Your task to perform on an android device: Go to privacy settings Image 0: 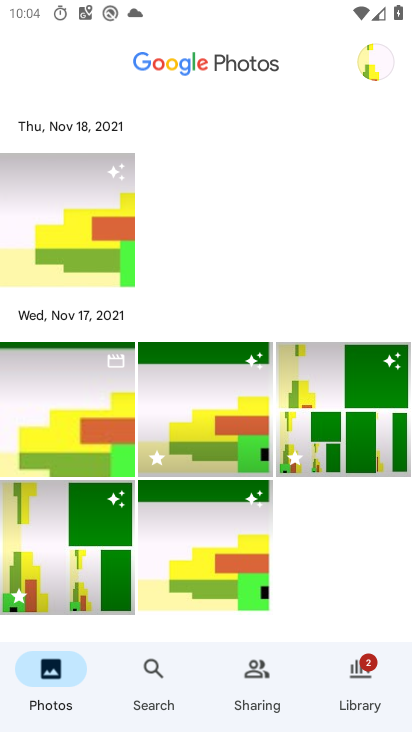
Step 0: press back button
Your task to perform on an android device: Go to privacy settings Image 1: 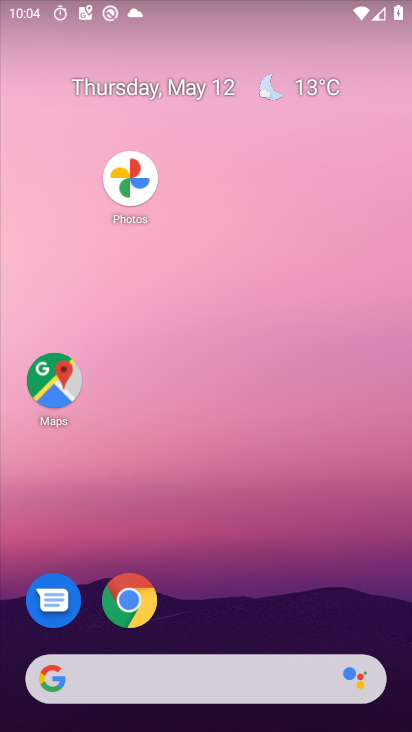
Step 1: drag from (294, 627) to (174, 72)
Your task to perform on an android device: Go to privacy settings Image 2: 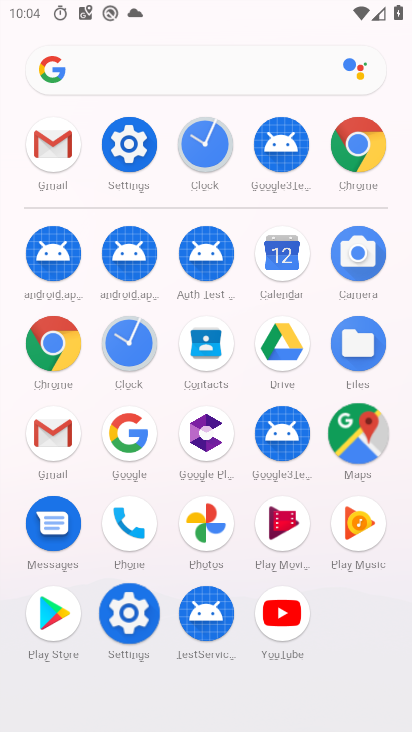
Step 2: click (128, 147)
Your task to perform on an android device: Go to privacy settings Image 3: 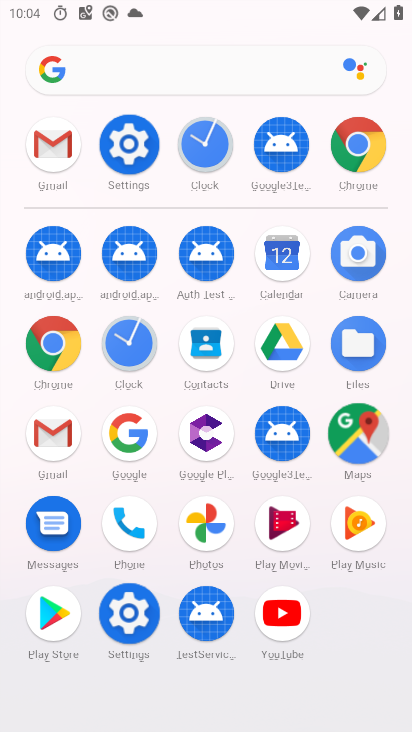
Step 3: click (128, 147)
Your task to perform on an android device: Go to privacy settings Image 4: 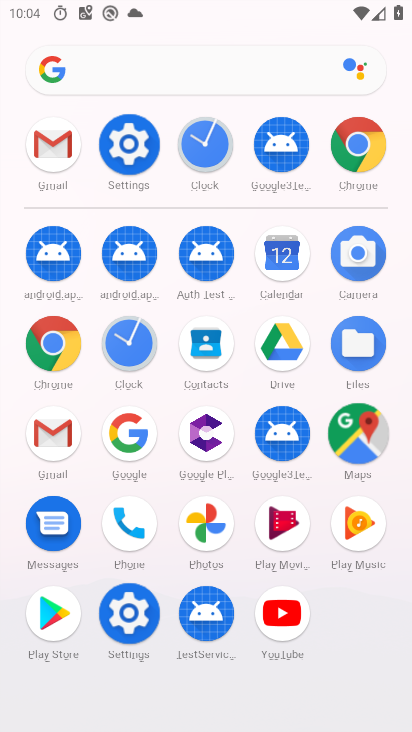
Step 4: click (131, 147)
Your task to perform on an android device: Go to privacy settings Image 5: 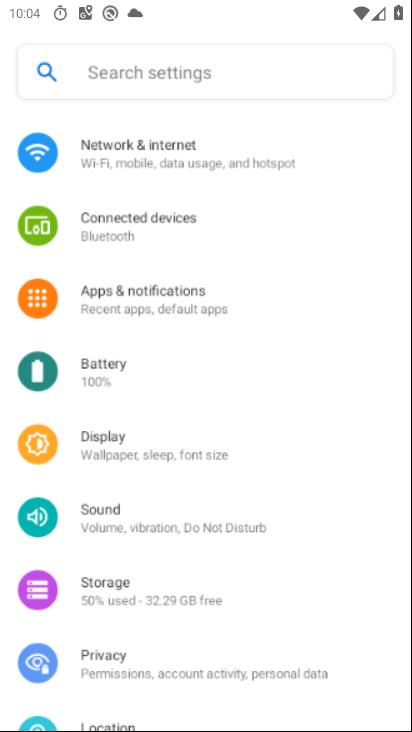
Step 5: click (131, 148)
Your task to perform on an android device: Go to privacy settings Image 6: 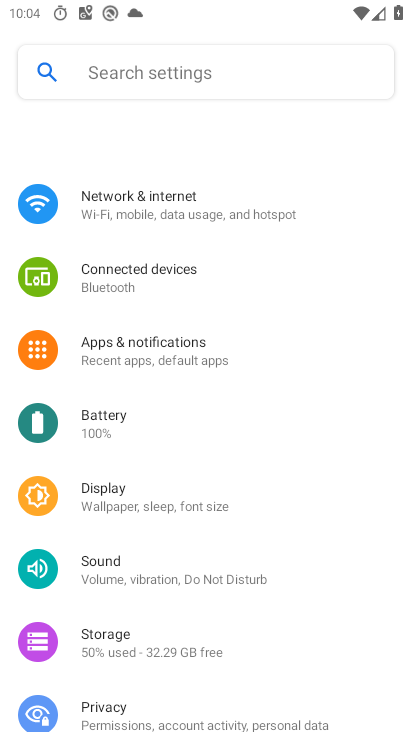
Step 6: click (132, 151)
Your task to perform on an android device: Go to privacy settings Image 7: 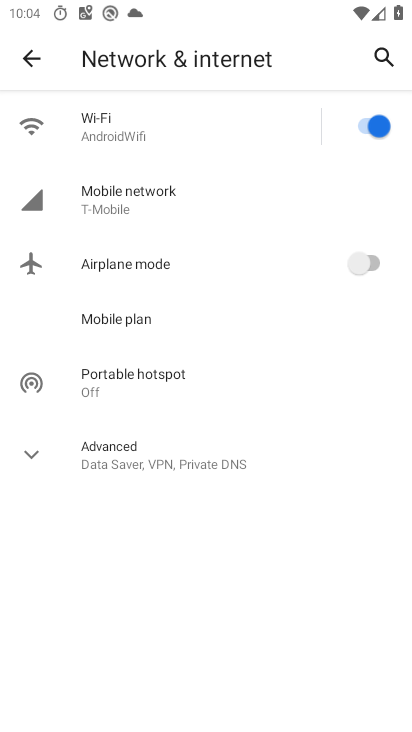
Step 7: click (30, 53)
Your task to perform on an android device: Go to privacy settings Image 8: 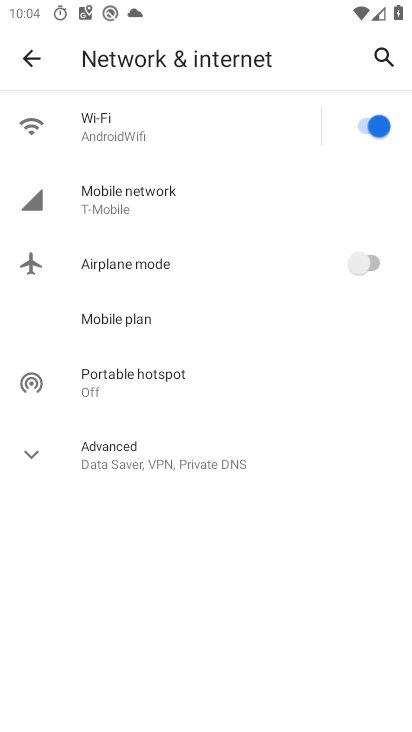
Step 8: click (32, 53)
Your task to perform on an android device: Go to privacy settings Image 9: 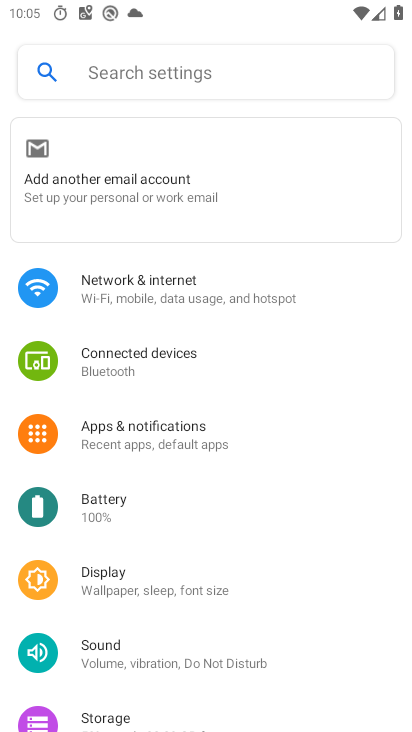
Step 9: drag from (156, 562) to (62, 196)
Your task to perform on an android device: Go to privacy settings Image 10: 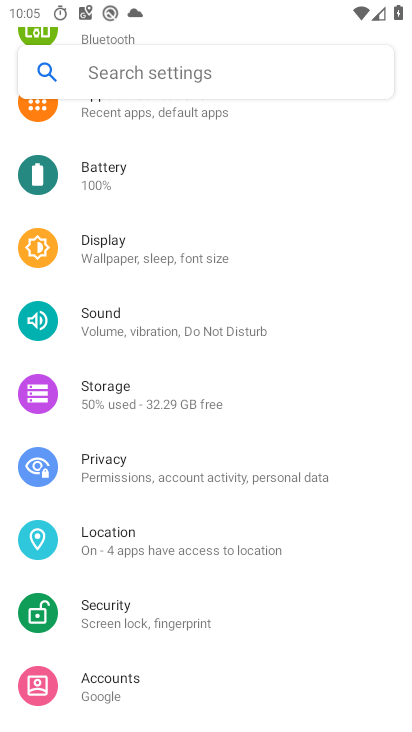
Step 10: drag from (152, 401) to (174, 214)
Your task to perform on an android device: Go to privacy settings Image 11: 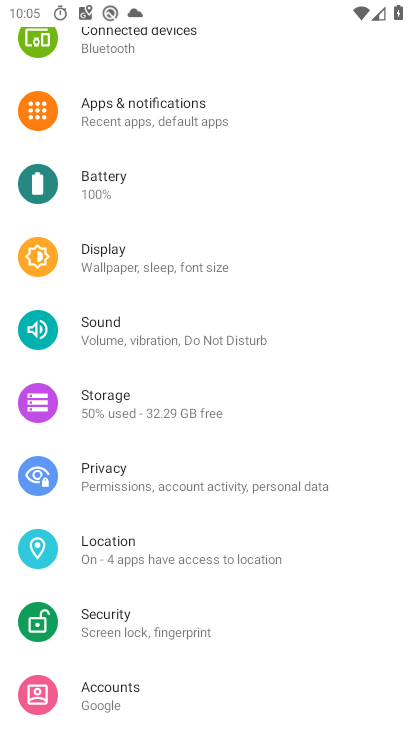
Step 11: click (54, 136)
Your task to perform on an android device: Go to privacy settings Image 12: 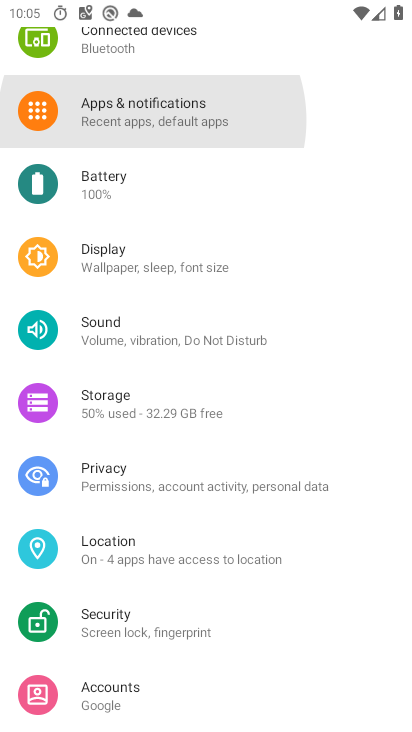
Step 12: drag from (115, 382) to (167, 130)
Your task to perform on an android device: Go to privacy settings Image 13: 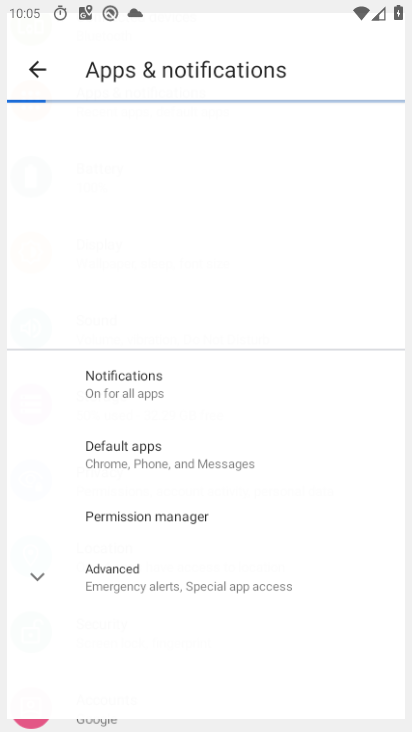
Step 13: click (103, 474)
Your task to perform on an android device: Go to privacy settings Image 14: 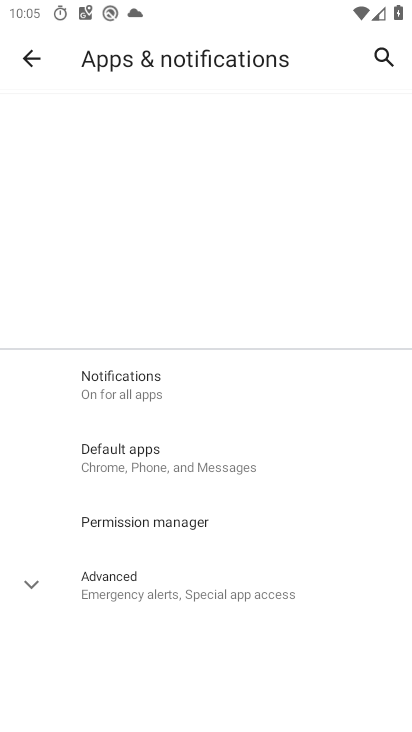
Step 14: click (104, 469)
Your task to perform on an android device: Go to privacy settings Image 15: 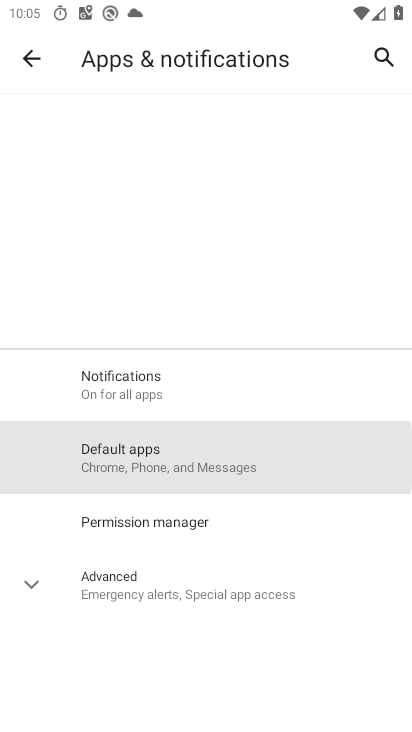
Step 15: click (105, 467)
Your task to perform on an android device: Go to privacy settings Image 16: 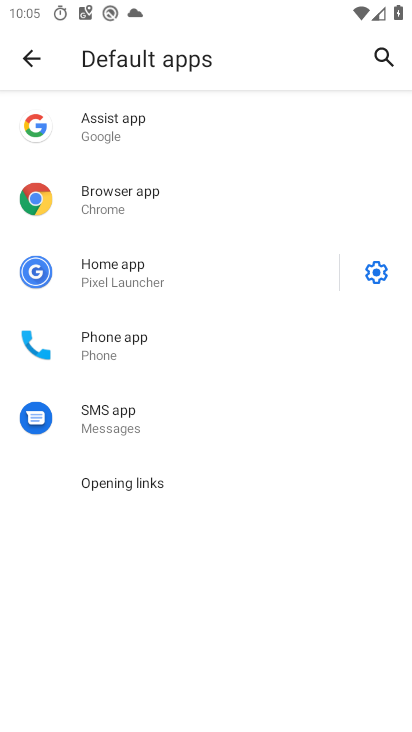
Step 16: click (25, 57)
Your task to perform on an android device: Go to privacy settings Image 17: 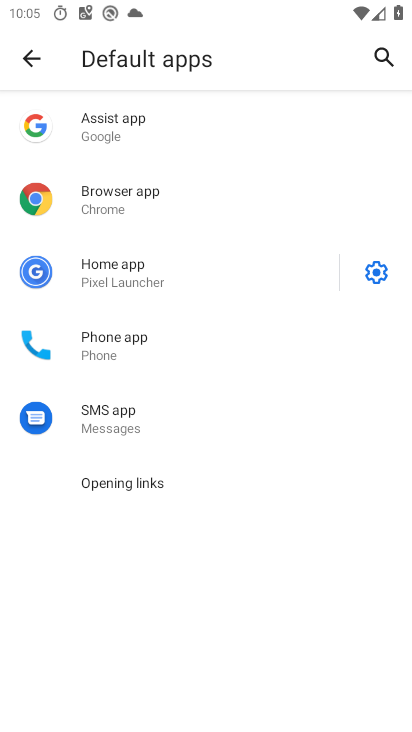
Step 17: task complete